Your task to perform on an android device: open app "Google Home" (install if not already installed) Image 0: 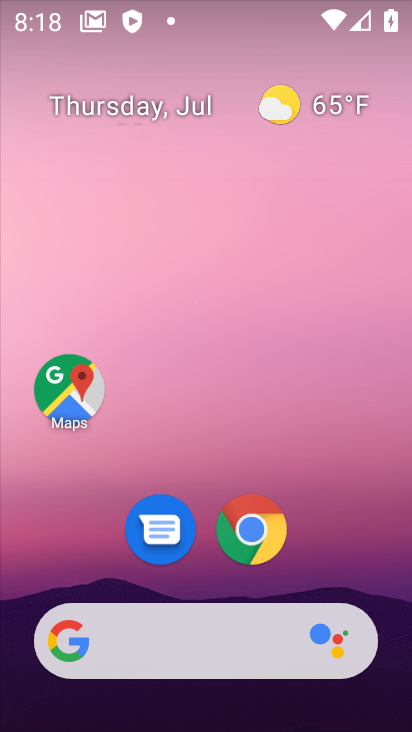
Step 0: drag from (340, 586) to (341, 6)
Your task to perform on an android device: open app "Google Home" (install if not already installed) Image 1: 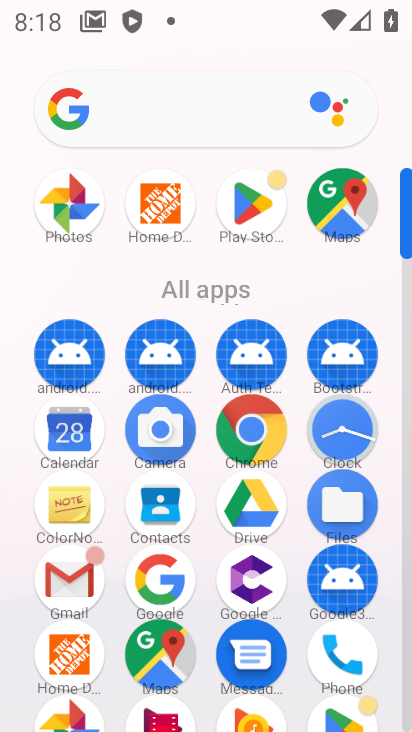
Step 1: click (251, 206)
Your task to perform on an android device: open app "Google Home" (install if not already installed) Image 2: 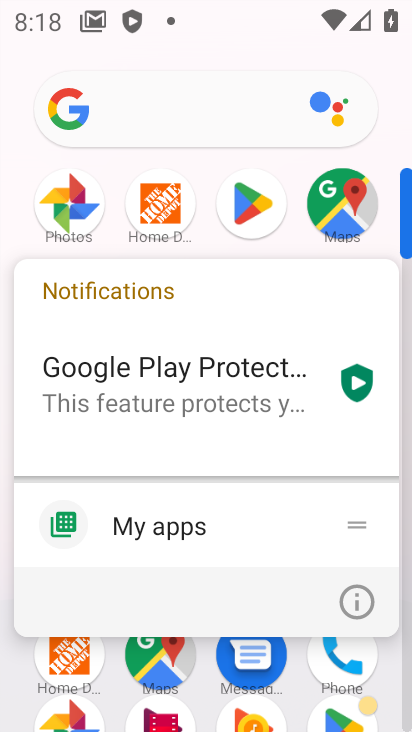
Step 2: click (251, 206)
Your task to perform on an android device: open app "Google Home" (install if not already installed) Image 3: 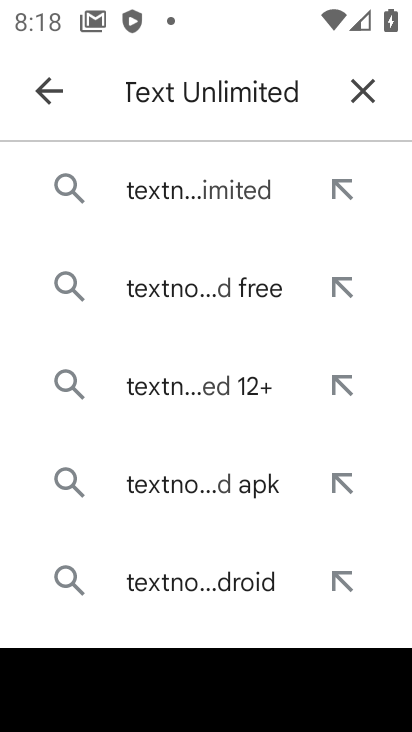
Step 3: click (373, 103)
Your task to perform on an android device: open app "Google Home" (install if not already installed) Image 4: 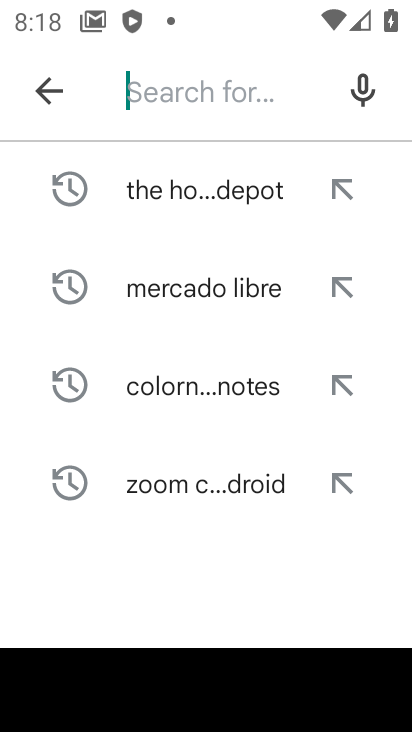
Step 4: type "Google Home"
Your task to perform on an android device: open app "Google Home" (install if not already installed) Image 5: 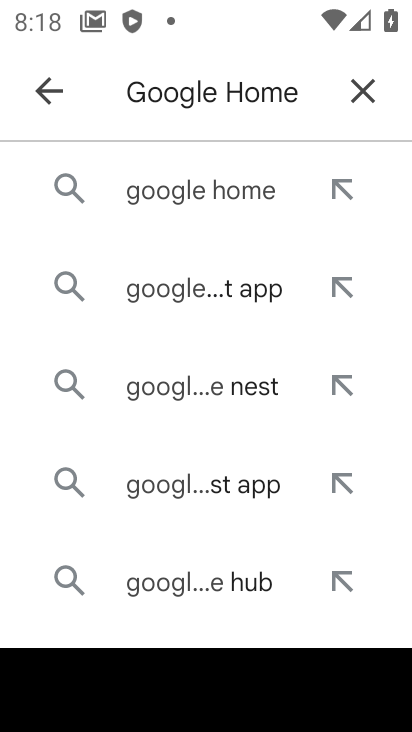
Step 5: click (157, 201)
Your task to perform on an android device: open app "Google Home" (install if not already installed) Image 6: 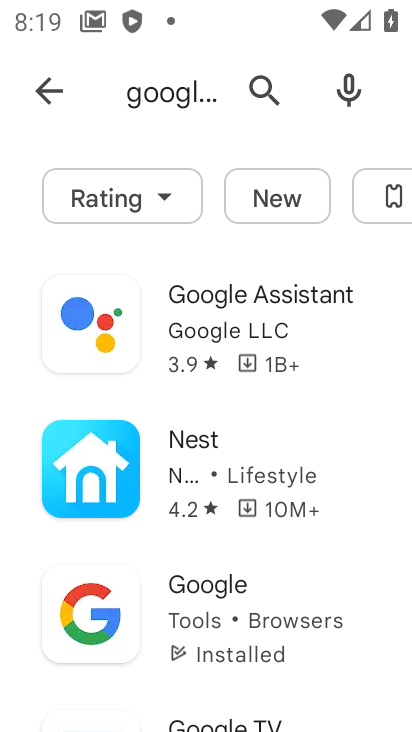
Step 6: task complete